Your task to perform on an android device: Go to Android settings Image 0: 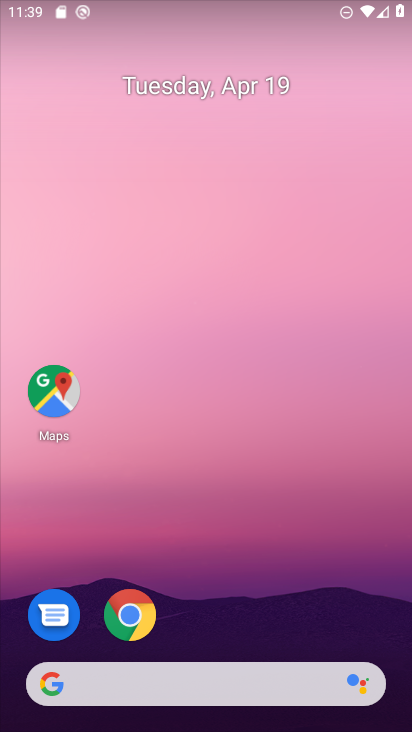
Step 0: drag from (222, 459) to (199, 261)
Your task to perform on an android device: Go to Android settings Image 1: 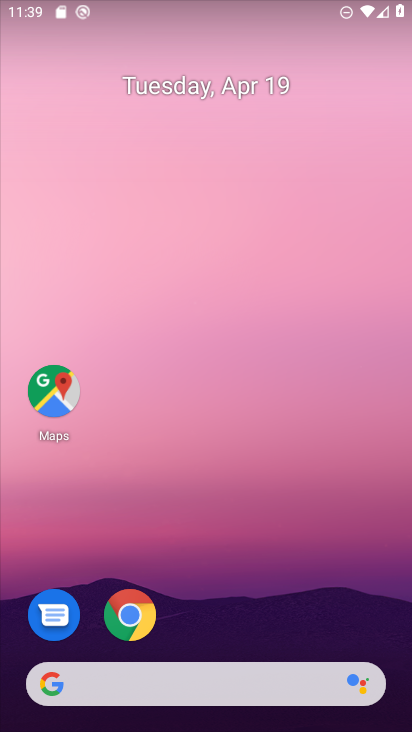
Step 1: drag from (197, 645) to (200, 169)
Your task to perform on an android device: Go to Android settings Image 2: 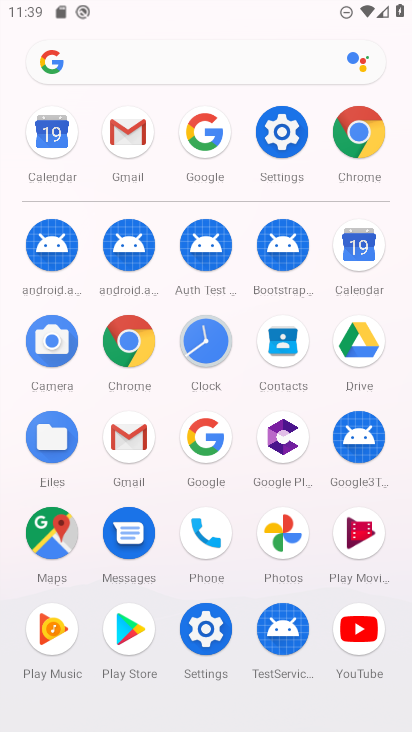
Step 2: click (202, 633)
Your task to perform on an android device: Go to Android settings Image 3: 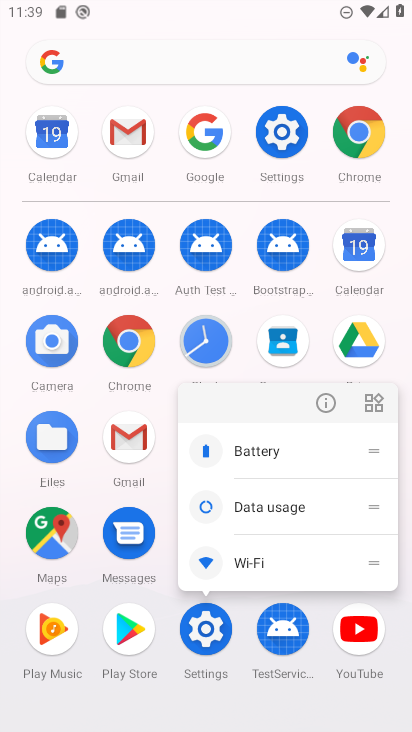
Step 3: click (214, 630)
Your task to perform on an android device: Go to Android settings Image 4: 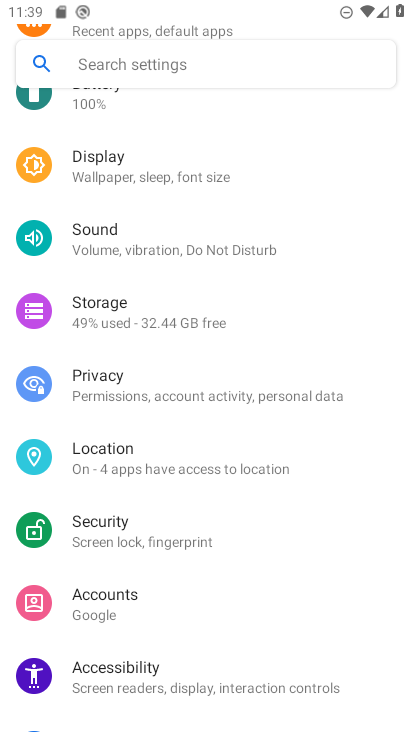
Step 4: task complete